Your task to perform on an android device: turn on data saver in the chrome app Image 0: 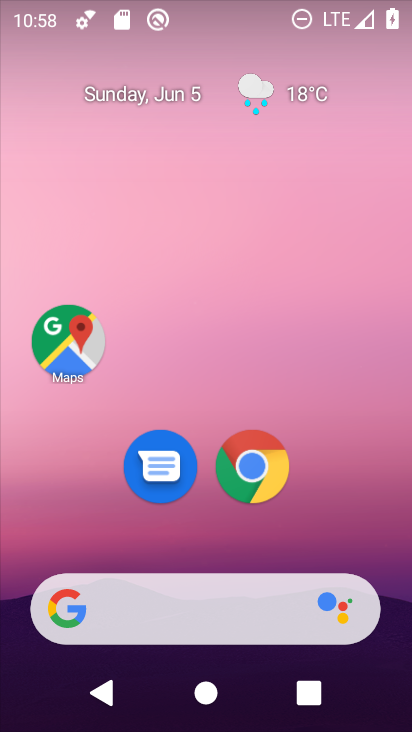
Step 0: drag from (328, 445) to (309, 65)
Your task to perform on an android device: turn on data saver in the chrome app Image 1: 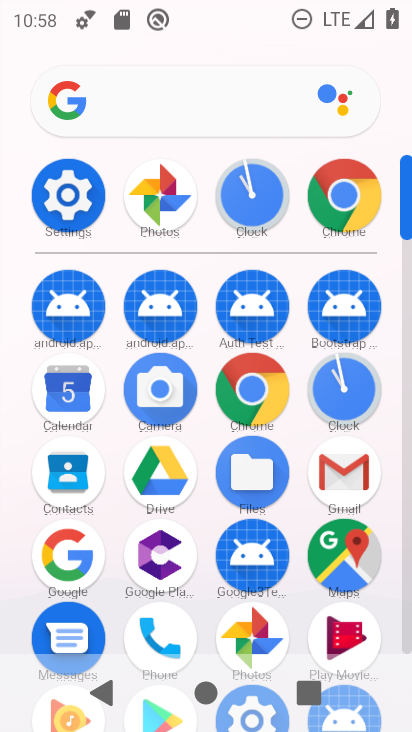
Step 1: click (249, 385)
Your task to perform on an android device: turn on data saver in the chrome app Image 2: 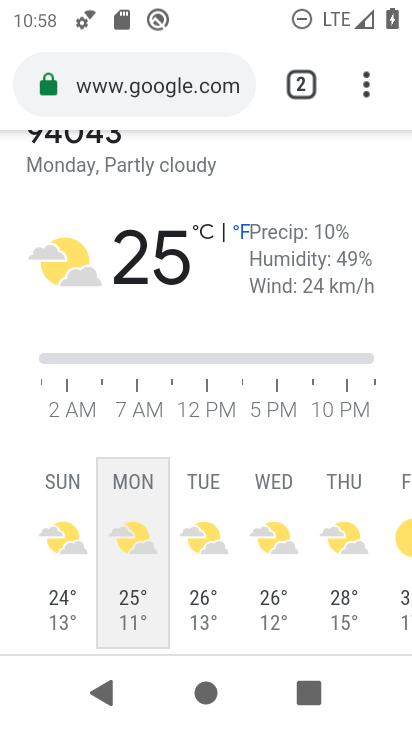
Step 2: drag from (359, 83) to (226, 526)
Your task to perform on an android device: turn on data saver in the chrome app Image 3: 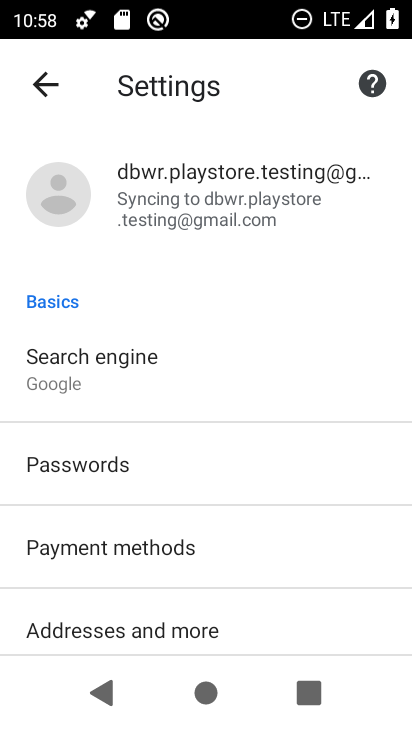
Step 3: drag from (231, 593) to (306, 198)
Your task to perform on an android device: turn on data saver in the chrome app Image 4: 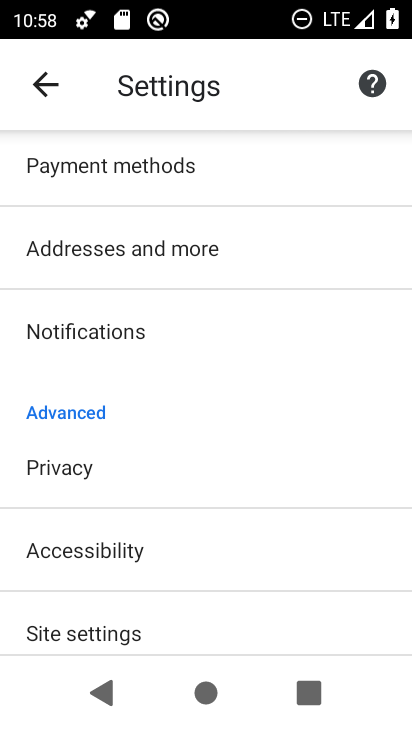
Step 4: drag from (263, 627) to (259, 191)
Your task to perform on an android device: turn on data saver in the chrome app Image 5: 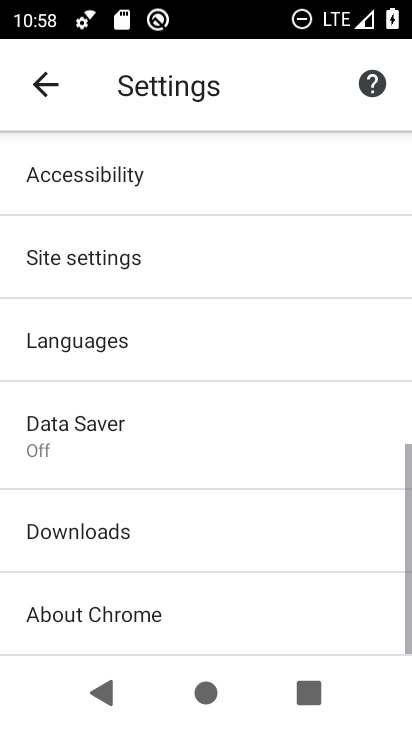
Step 5: click (184, 463)
Your task to perform on an android device: turn on data saver in the chrome app Image 6: 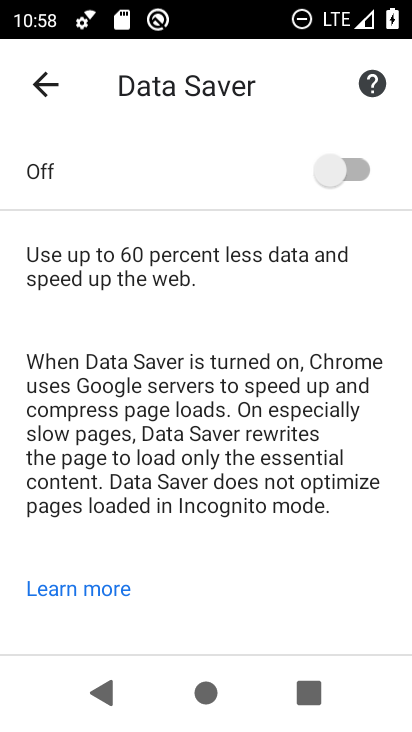
Step 6: click (356, 167)
Your task to perform on an android device: turn on data saver in the chrome app Image 7: 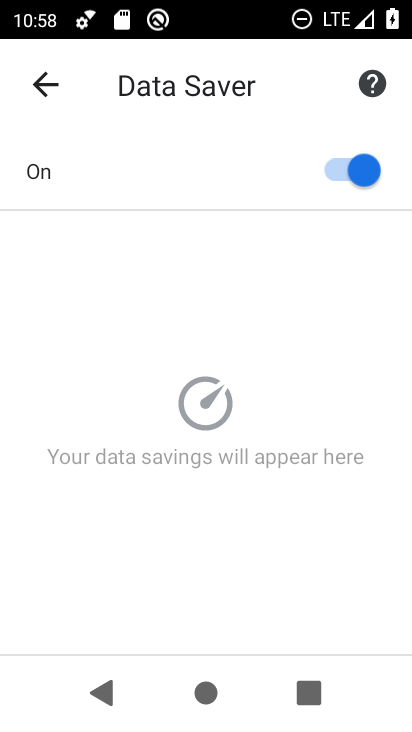
Step 7: task complete